Your task to perform on an android device: change text size in settings app Image 0: 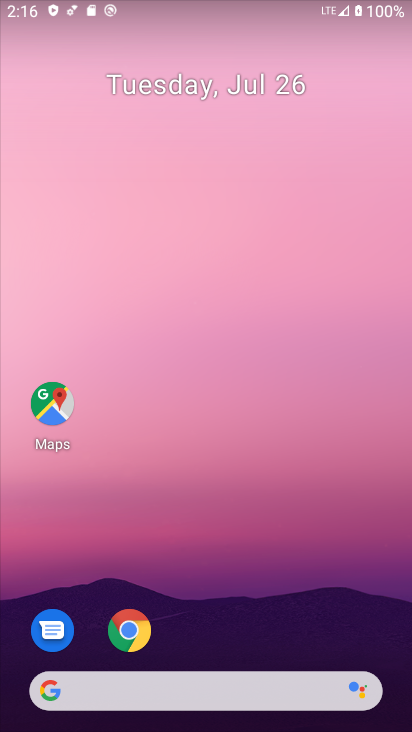
Step 0: drag from (195, 623) to (178, 165)
Your task to perform on an android device: change text size in settings app Image 1: 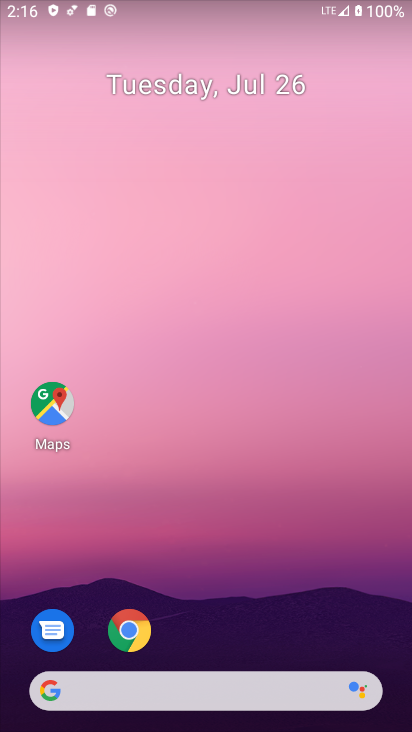
Step 1: drag from (264, 587) to (264, 205)
Your task to perform on an android device: change text size in settings app Image 2: 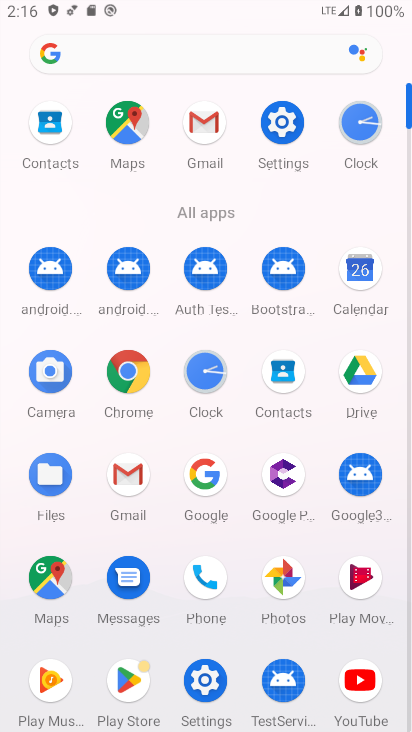
Step 2: click (204, 677)
Your task to perform on an android device: change text size in settings app Image 3: 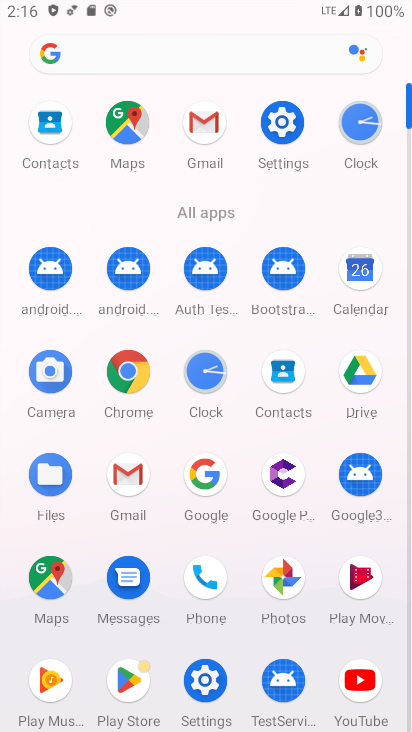
Step 3: click (204, 677)
Your task to perform on an android device: change text size in settings app Image 4: 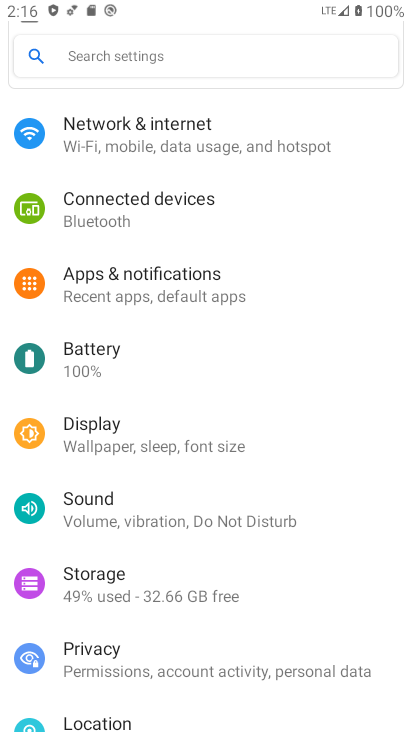
Step 4: click (110, 434)
Your task to perform on an android device: change text size in settings app Image 5: 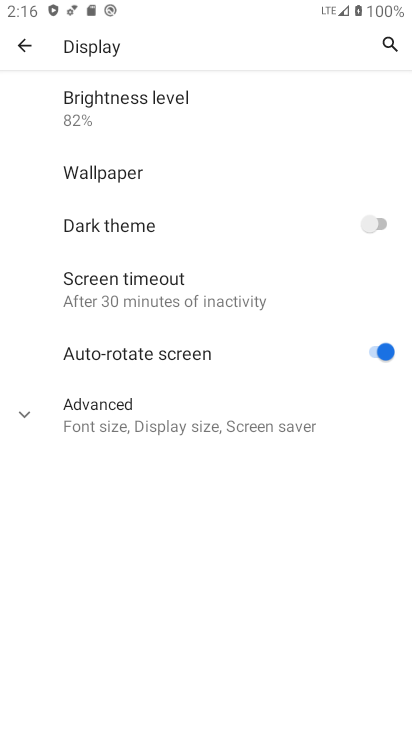
Step 5: click (133, 420)
Your task to perform on an android device: change text size in settings app Image 6: 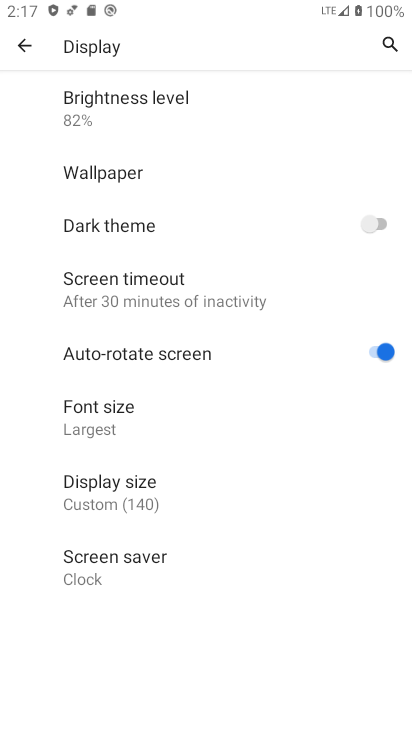
Step 6: click (104, 418)
Your task to perform on an android device: change text size in settings app Image 7: 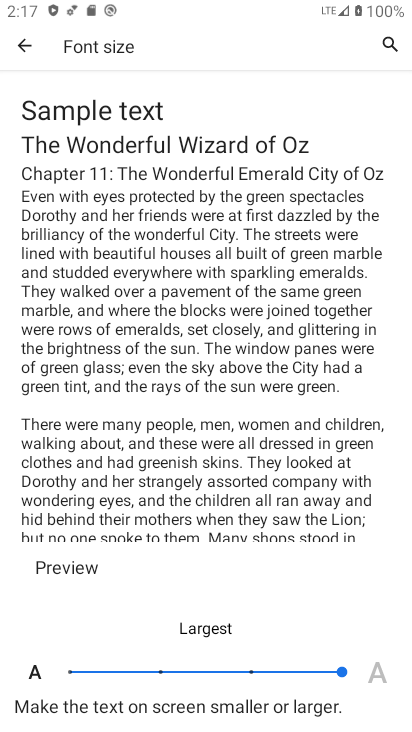
Step 7: click (247, 666)
Your task to perform on an android device: change text size in settings app Image 8: 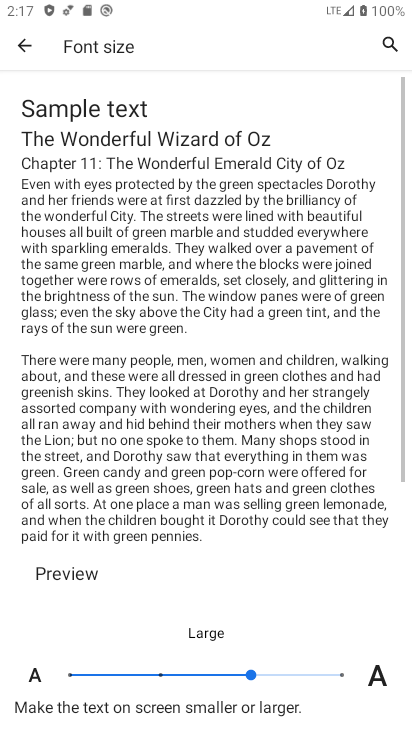
Step 8: task complete